Your task to perform on an android device: Open Android settings Image 0: 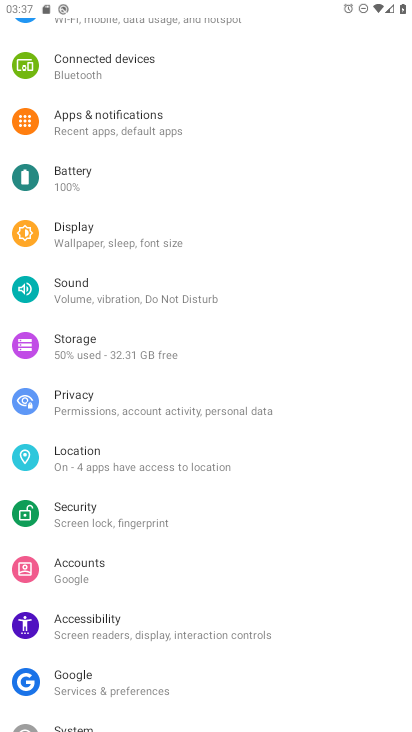
Step 0: task complete